Your task to perform on an android device: Open the calendar app, open the side menu, and click the "Day" option Image 0: 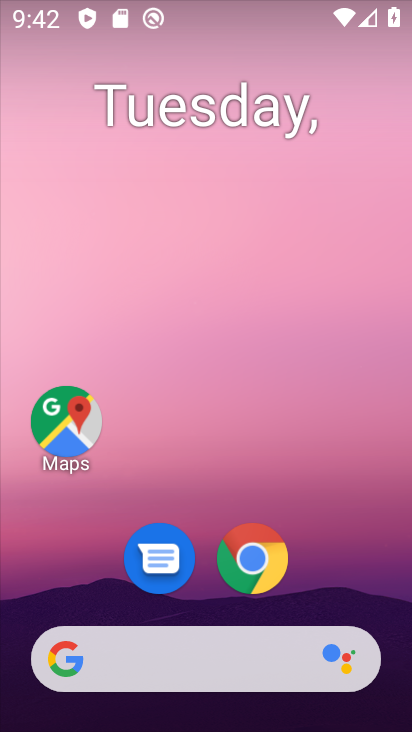
Step 0: drag from (381, 679) to (181, 78)
Your task to perform on an android device: Open the calendar app, open the side menu, and click the "Day" option Image 1: 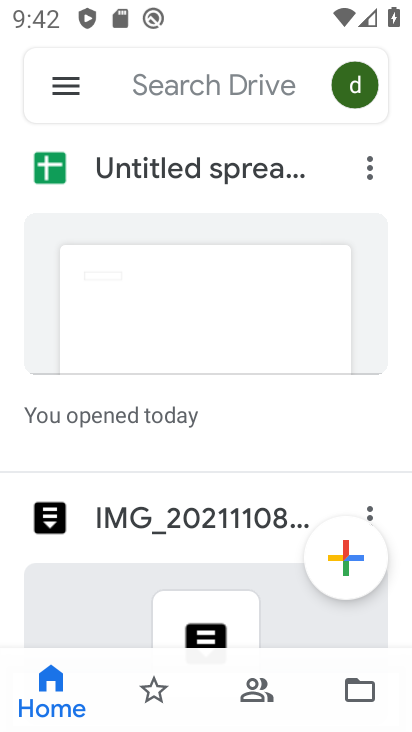
Step 1: press back button
Your task to perform on an android device: Open the calendar app, open the side menu, and click the "Day" option Image 2: 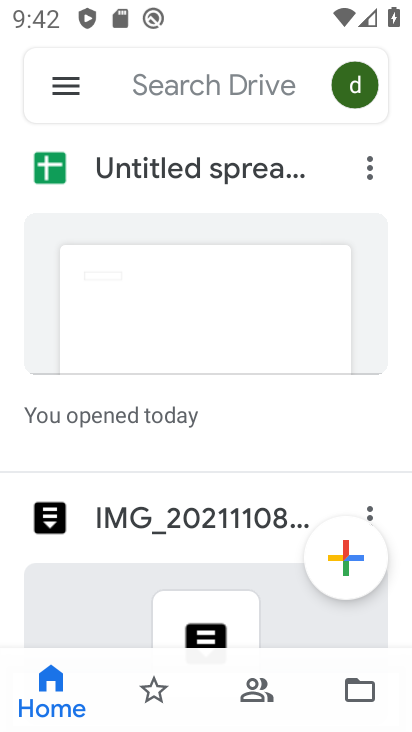
Step 2: press back button
Your task to perform on an android device: Open the calendar app, open the side menu, and click the "Day" option Image 3: 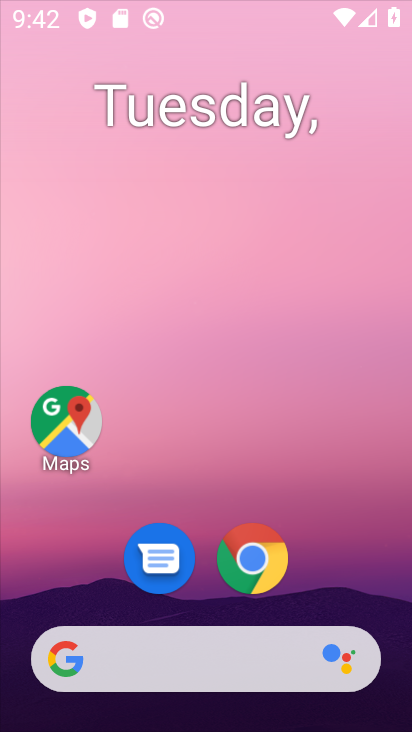
Step 3: press back button
Your task to perform on an android device: Open the calendar app, open the side menu, and click the "Day" option Image 4: 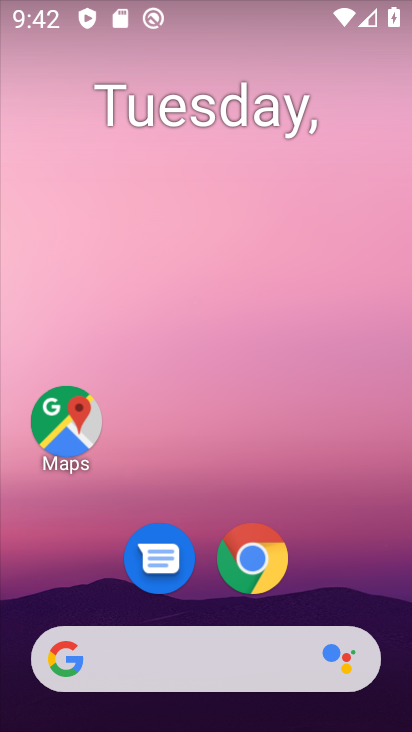
Step 4: drag from (397, 633) to (124, 133)
Your task to perform on an android device: Open the calendar app, open the side menu, and click the "Day" option Image 5: 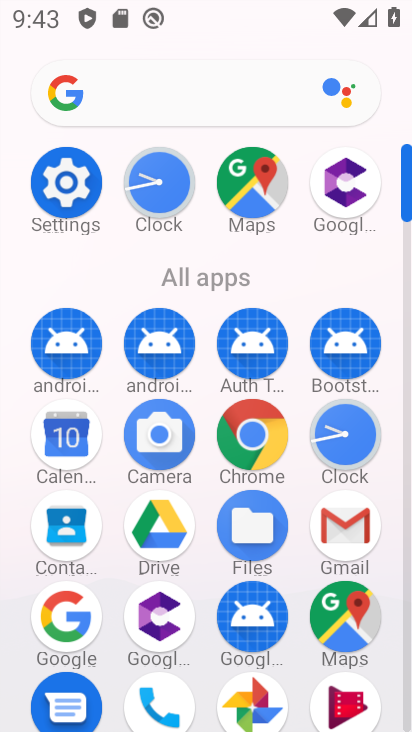
Step 5: click (69, 441)
Your task to perform on an android device: Open the calendar app, open the side menu, and click the "Day" option Image 6: 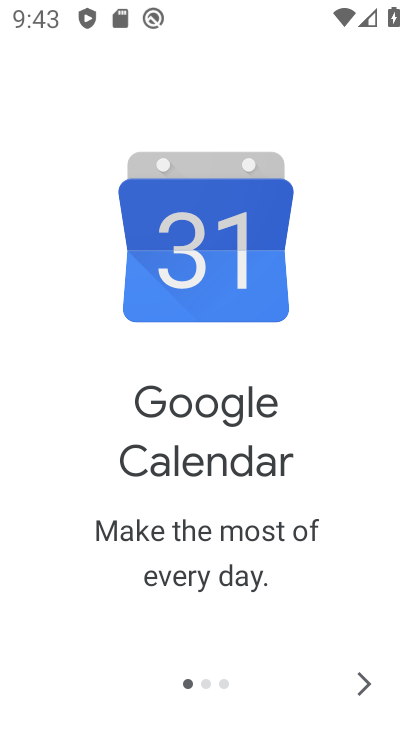
Step 6: click (359, 675)
Your task to perform on an android device: Open the calendar app, open the side menu, and click the "Day" option Image 7: 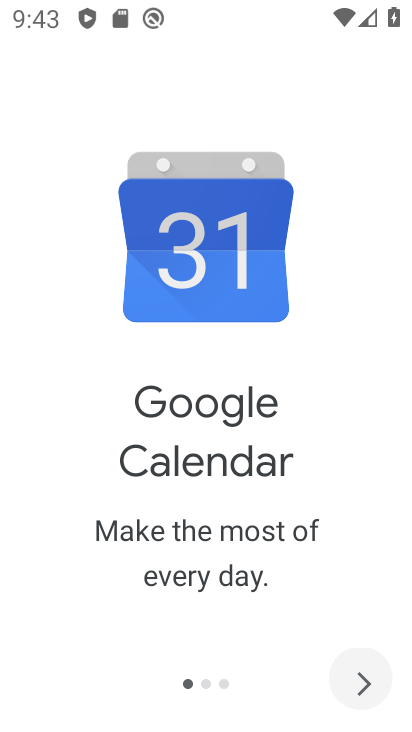
Step 7: click (359, 675)
Your task to perform on an android device: Open the calendar app, open the side menu, and click the "Day" option Image 8: 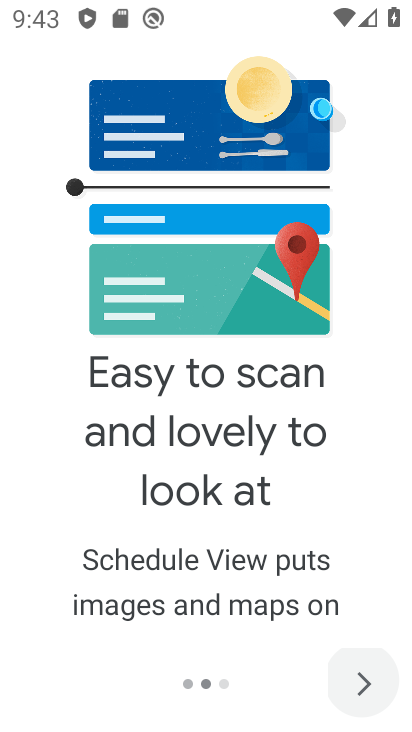
Step 8: click (359, 675)
Your task to perform on an android device: Open the calendar app, open the side menu, and click the "Day" option Image 9: 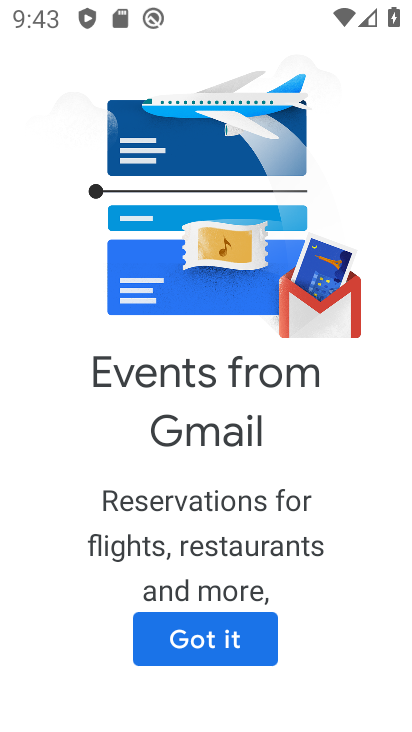
Step 9: click (359, 679)
Your task to perform on an android device: Open the calendar app, open the side menu, and click the "Day" option Image 10: 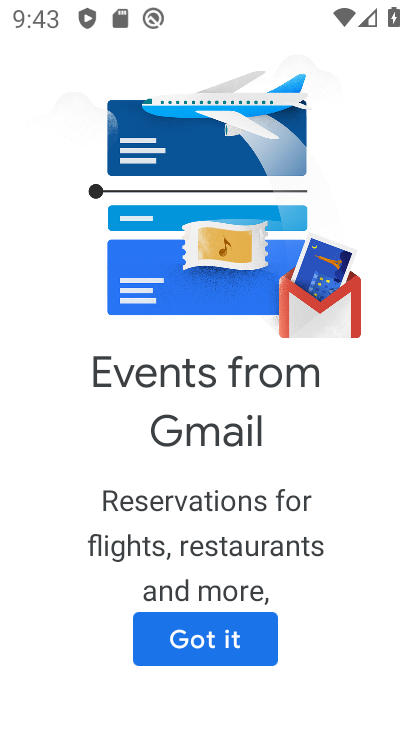
Step 10: click (199, 644)
Your task to perform on an android device: Open the calendar app, open the side menu, and click the "Day" option Image 11: 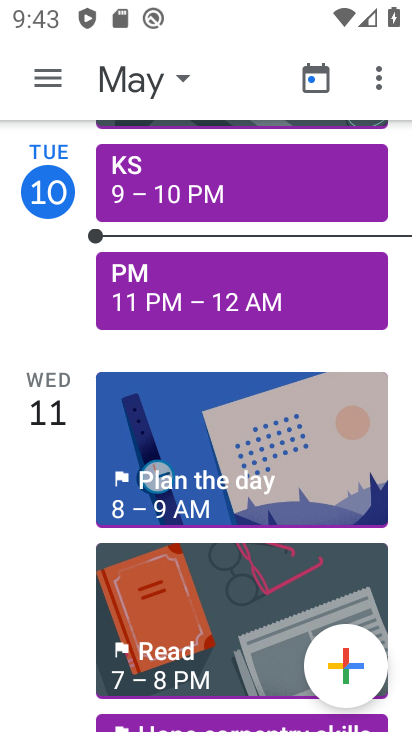
Step 11: click (50, 73)
Your task to perform on an android device: Open the calendar app, open the side menu, and click the "Day" option Image 12: 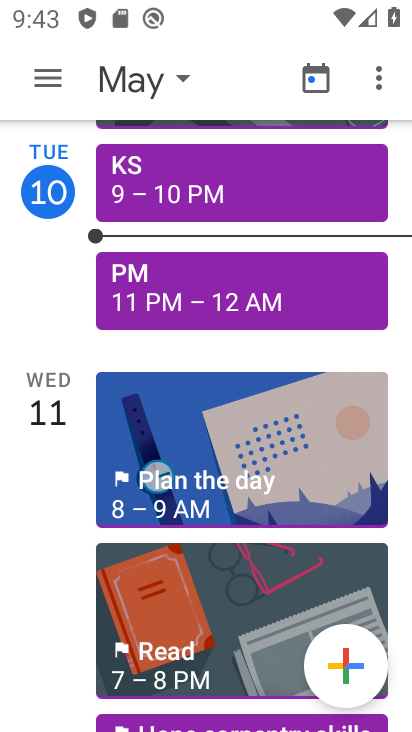
Step 12: click (50, 73)
Your task to perform on an android device: Open the calendar app, open the side menu, and click the "Day" option Image 13: 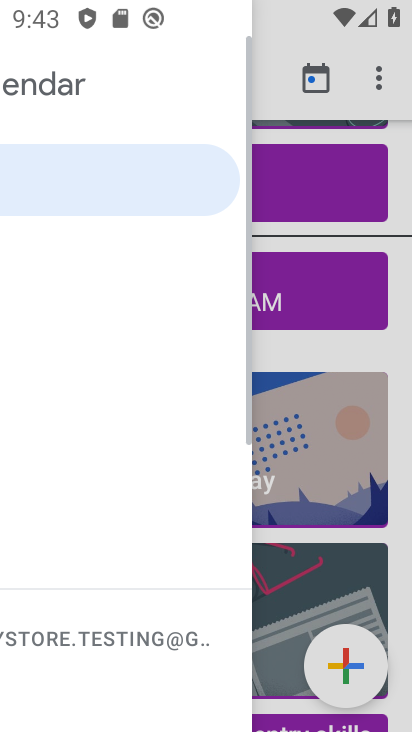
Step 13: click (50, 73)
Your task to perform on an android device: Open the calendar app, open the side menu, and click the "Day" option Image 14: 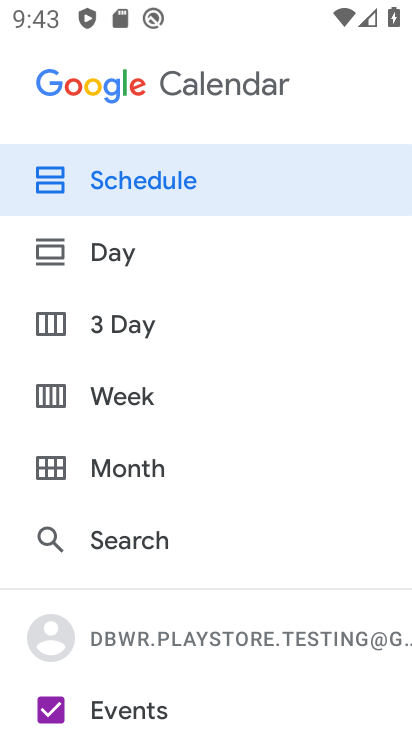
Step 14: click (121, 269)
Your task to perform on an android device: Open the calendar app, open the side menu, and click the "Day" option Image 15: 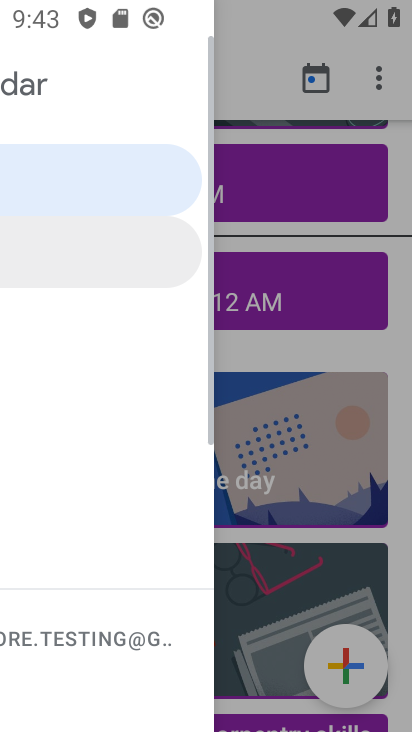
Step 15: click (112, 255)
Your task to perform on an android device: Open the calendar app, open the side menu, and click the "Day" option Image 16: 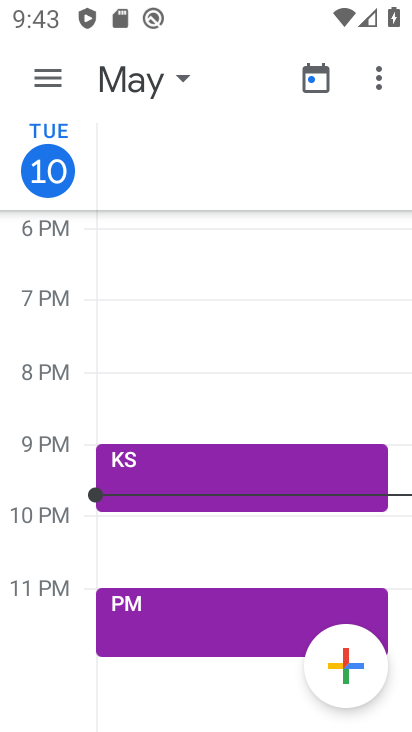
Step 16: task complete